Your task to perform on an android device: Turn off the flashlight Image 0: 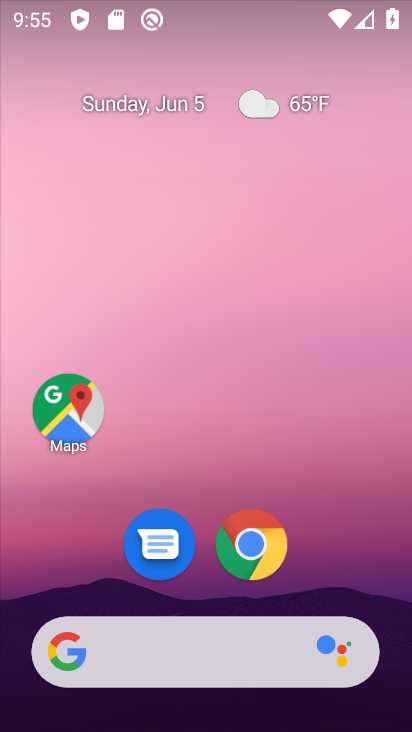
Step 0: drag from (374, 578) to (235, 13)
Your task to perform on an android device: Turn off the flashlight Image 1: 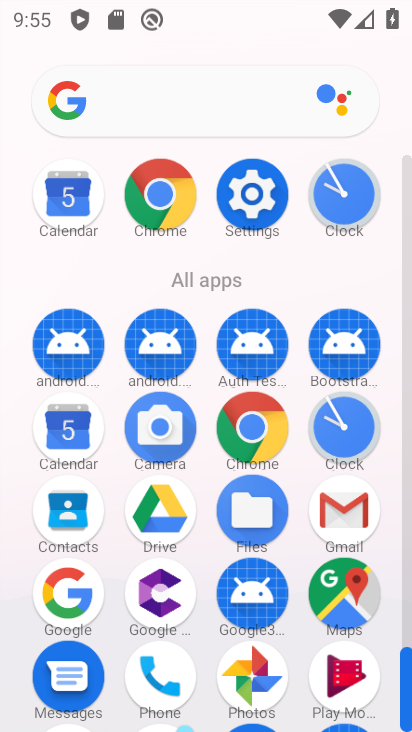
Step 1: click (243, 195)
Your task to perform on an android device: Turn off the flashlight Image 2: 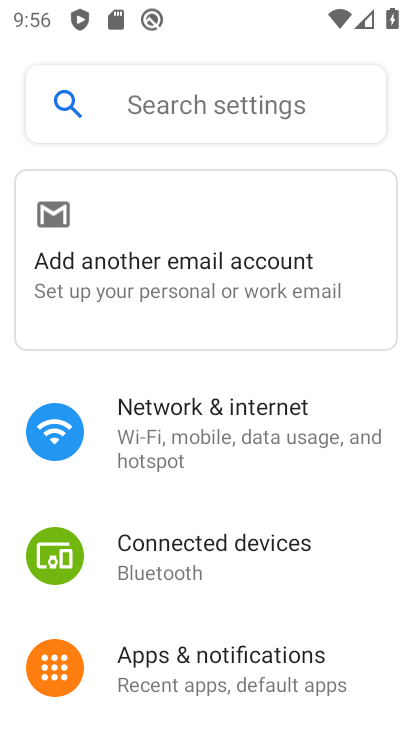
Step 2: task complete